Your task to perform on an android device: change the clock display to digital Image 0: 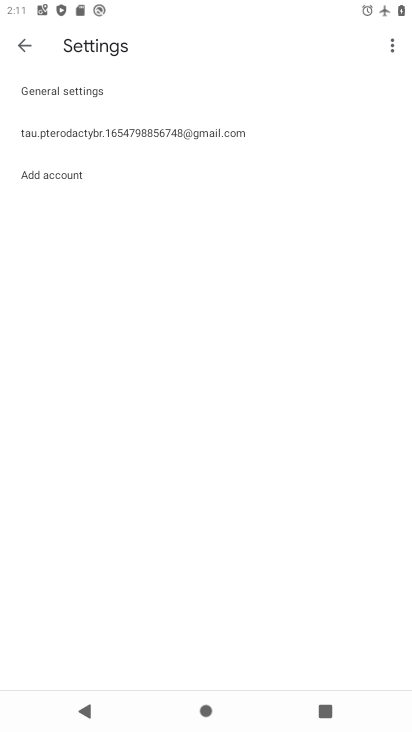
Step 0: press home button
Your task to perform on an android device: change the clock display to digital Image 1: 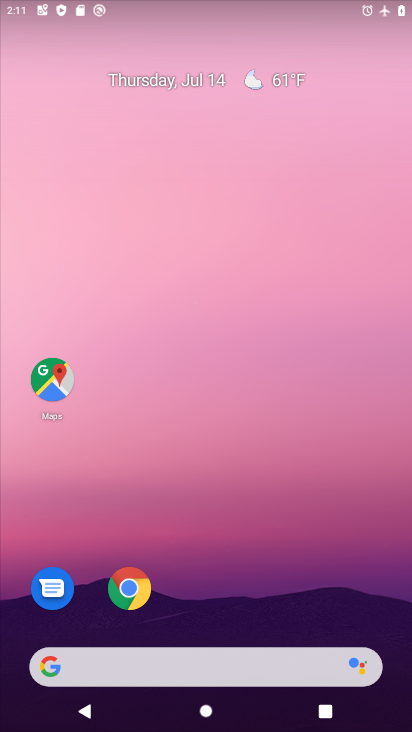
Step 1: drag from (145, 524) to (179, 278)
Your task to perform on an android device: change the clock display to digital Image 2: 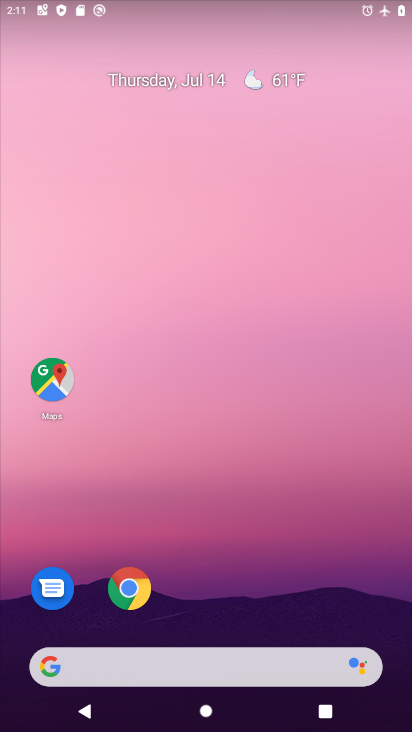
Step 2: drag from (194, 594) to (236, 136)
Your task to perform on an android device: change the clock display to digital Image 3: 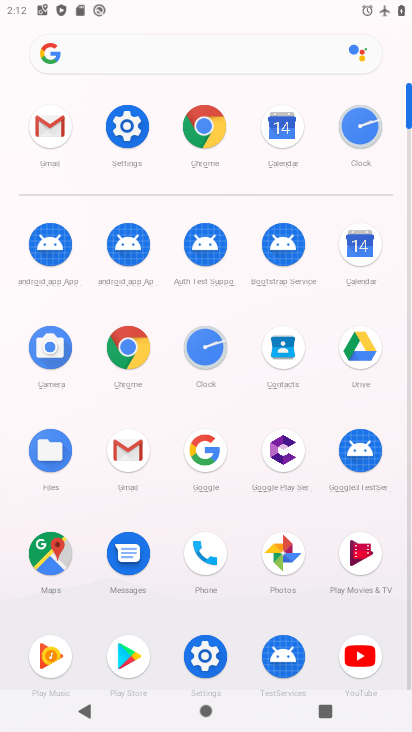
Step 3: click (355, 115)
Your task to perform on an android device: change the clock display to digital Image 4: 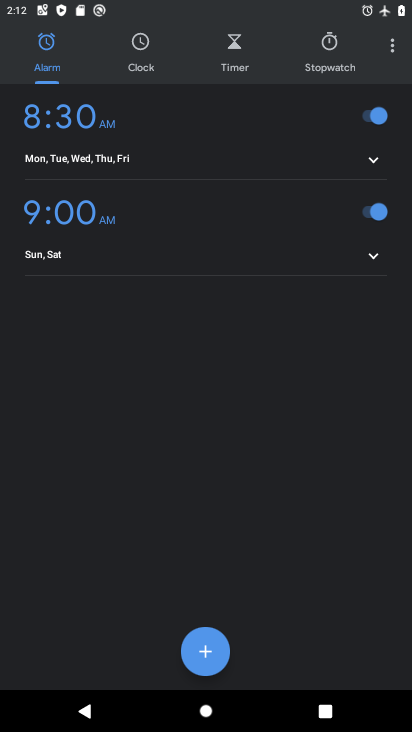
Step 4: click (404, 51)
Your task to perform on an android device: change the clock display to digital Image 5: 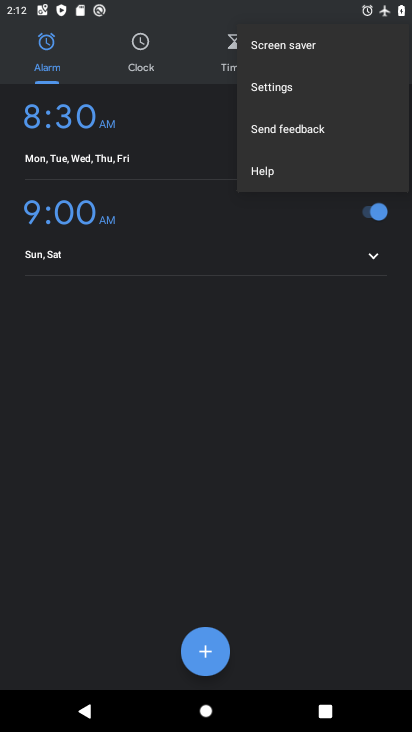
Step 5: click (277, 81)
Your task to perform on an android device: change the clock display to digital Image 6: 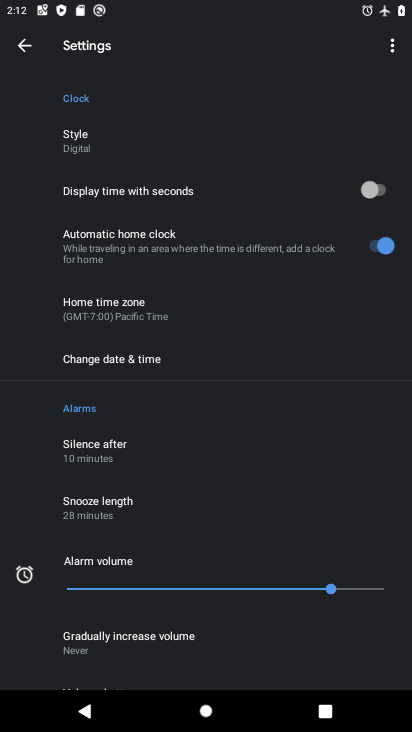
Step 6: click (126, 148)
Your task to perform on an android device: change the clock display to digital Image 7: 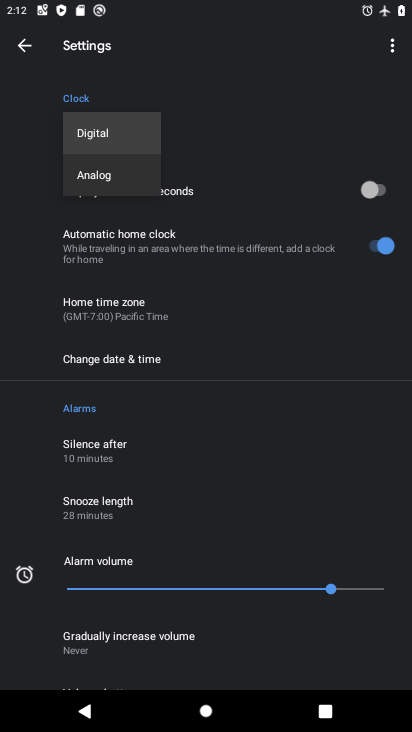
Step 7: click (111, 137)
Your task to perform on an android device: change the clock display to digital Image 8: 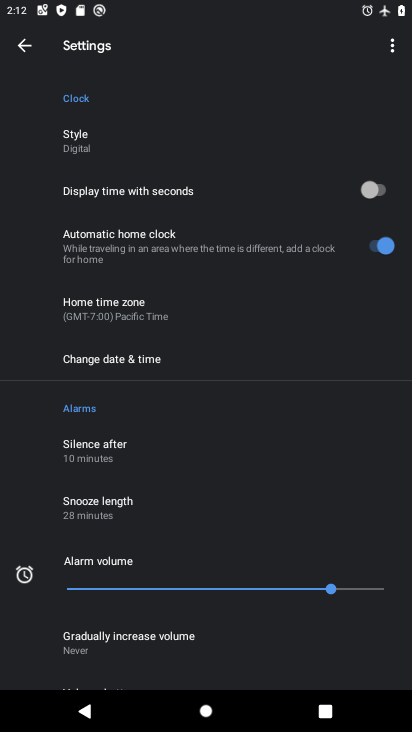
Step 8: task complete